Your task to perform on an android device: Add "razer huntsman" to the cart on bestbuy.com, then select checkout. Image 0: 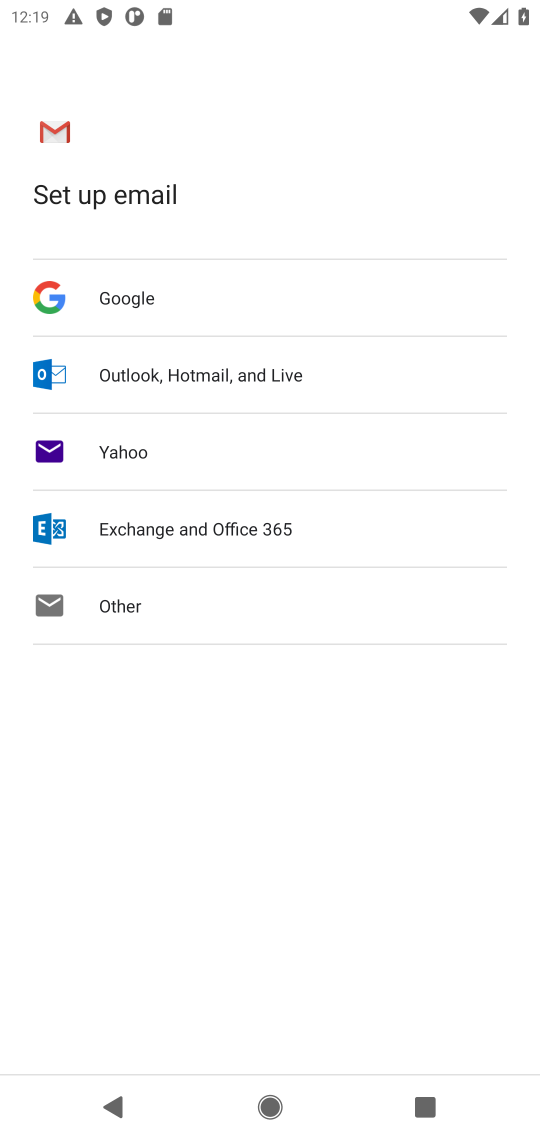
Step 0: press home button
Your task to perform on an android device: Add "razer huntsman" to the cart on bestbuy.com, then select checkout. Image 1: 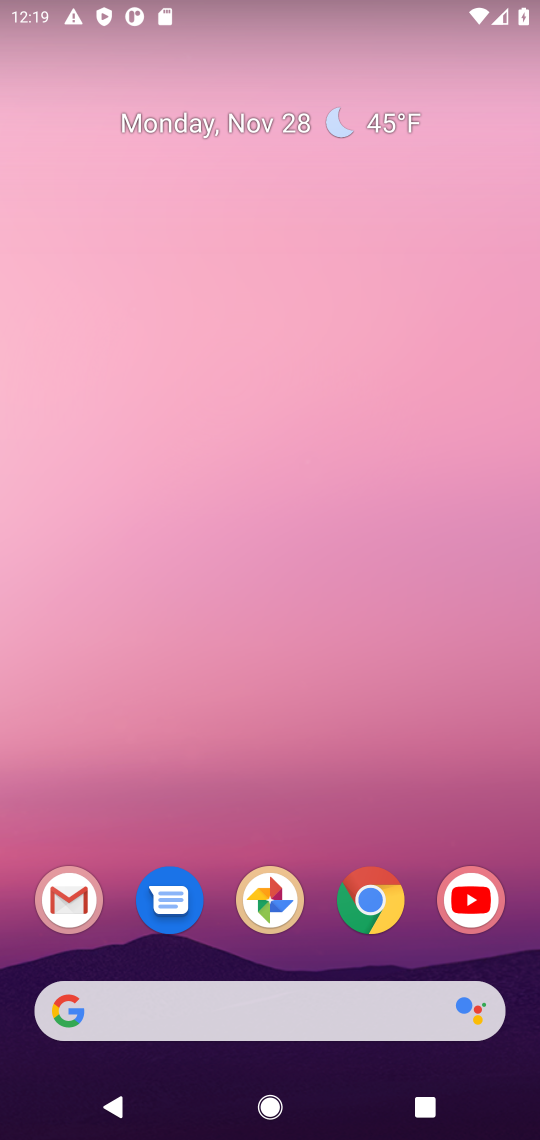
Step 1: click (368, 893)
Your task to perform on an android device: Add "razer huntsman" to the cart on bestbuy.com, then select checkout. Image 2: 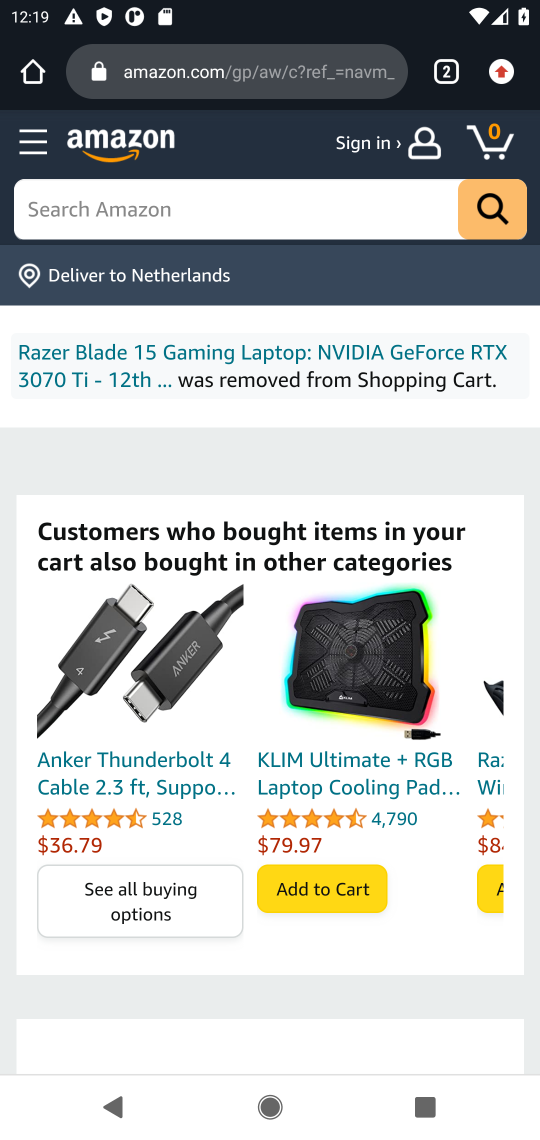
Step 2: click (215, 79)
Your task to perform on an android device: Add "razer huntsman" to the cart on bestbuy.com, then select checkout. Image 3: 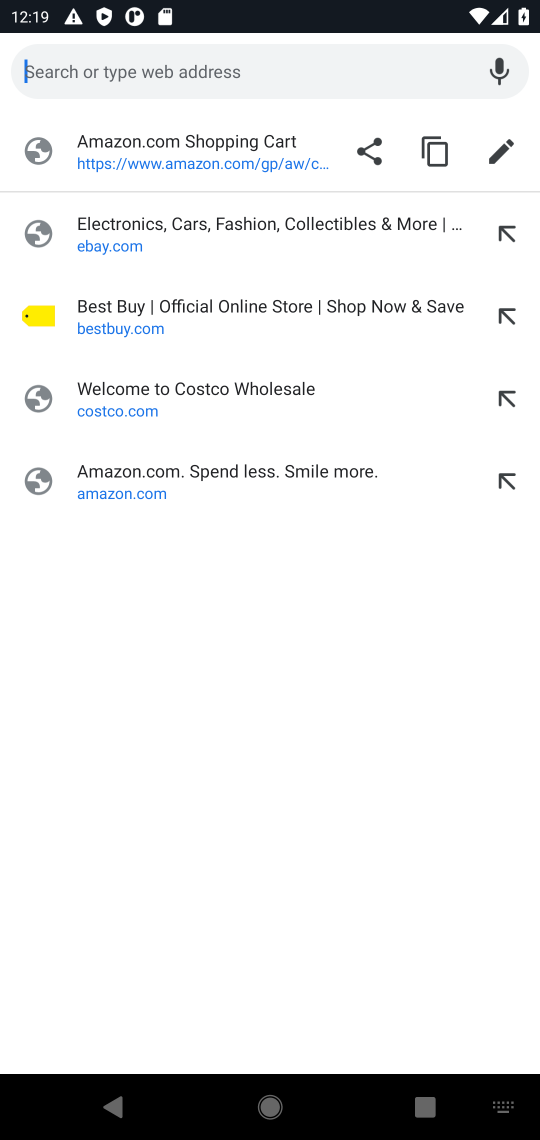
Step 3: click (124, 305)
Your task to perform on an android device: Add "razer huntsman" to the cart on bestbuy.com, then select checkout. Image 4: 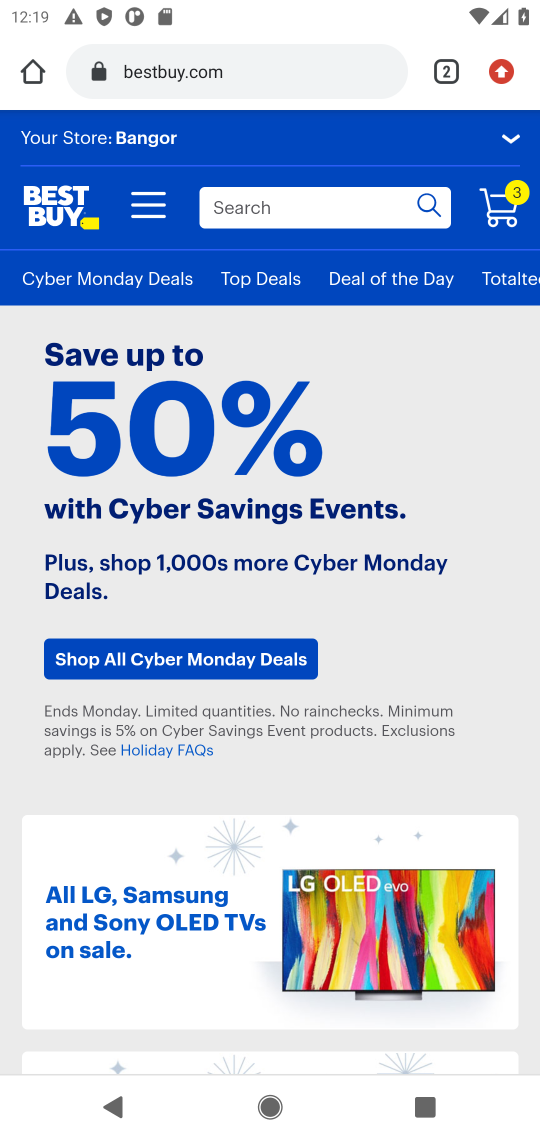
Step 4: click (265, 206)
Your task to perform on an android device: Add "razer huntsman" to the cart on bestbuy.com, then select checkout. Image 5: 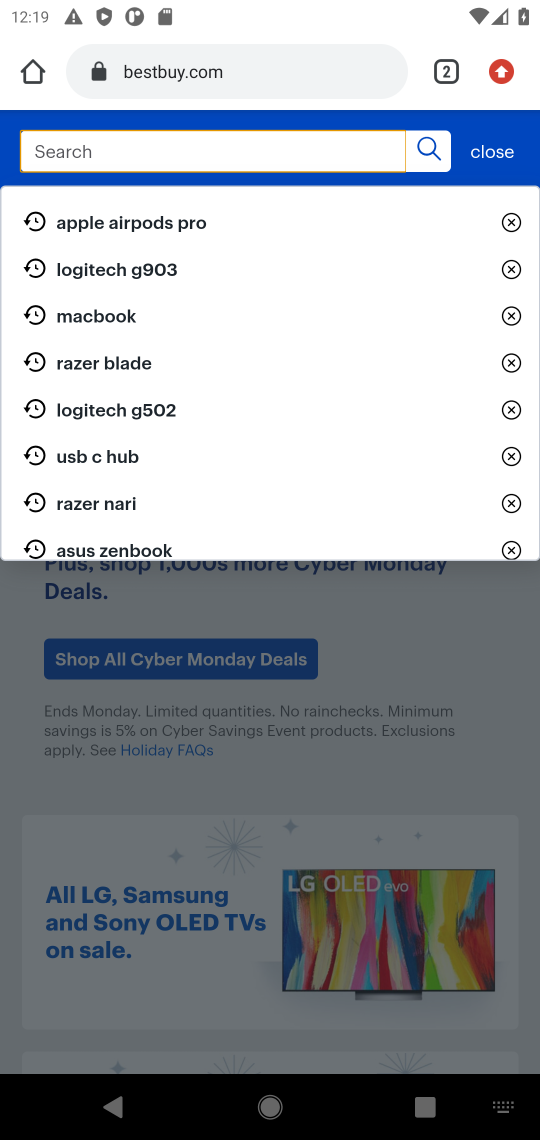
Step 5: type "razer huntsman"
Your task to perform on an android device: Add "razer huntsman" to the cart on bestbuy.com, then select checkout. Image 6: 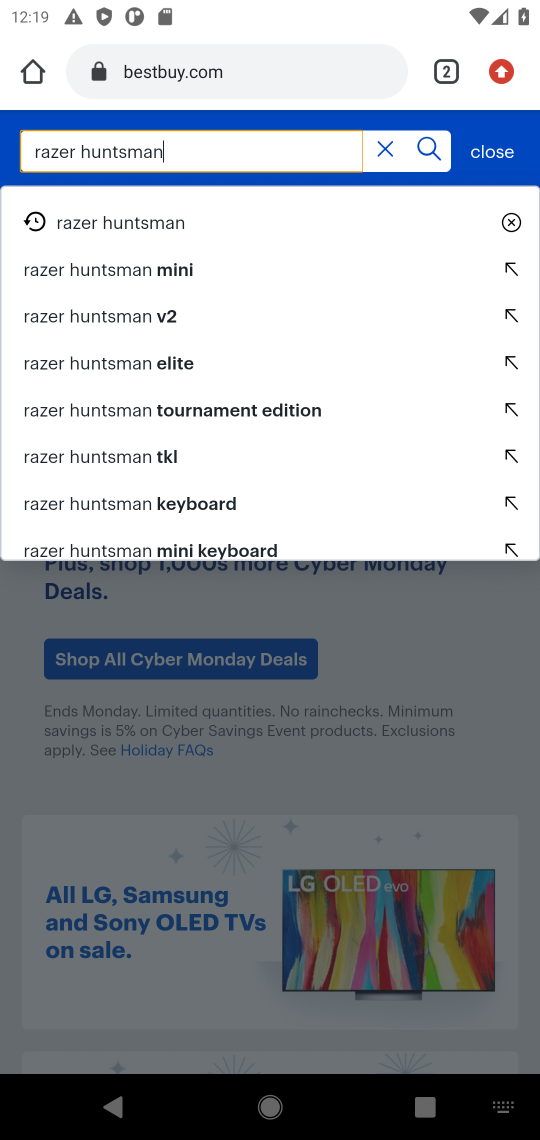
Step 6: click (127, 227)
Your task to perform on an android device: Add "razer huntsman" to the cart on bestbuy.com, then select checkout. Image 7: 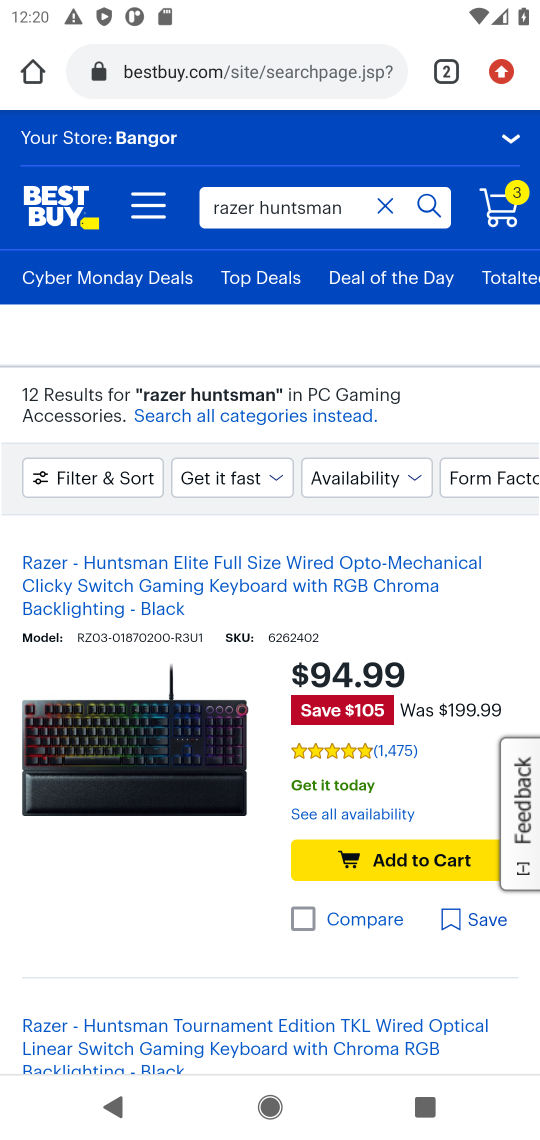
Step 7: click (400, 859)
Your task to perform on an android device: Add "razer huntsman" to the cart on bestbuy.com, then select checkout. Image 8: 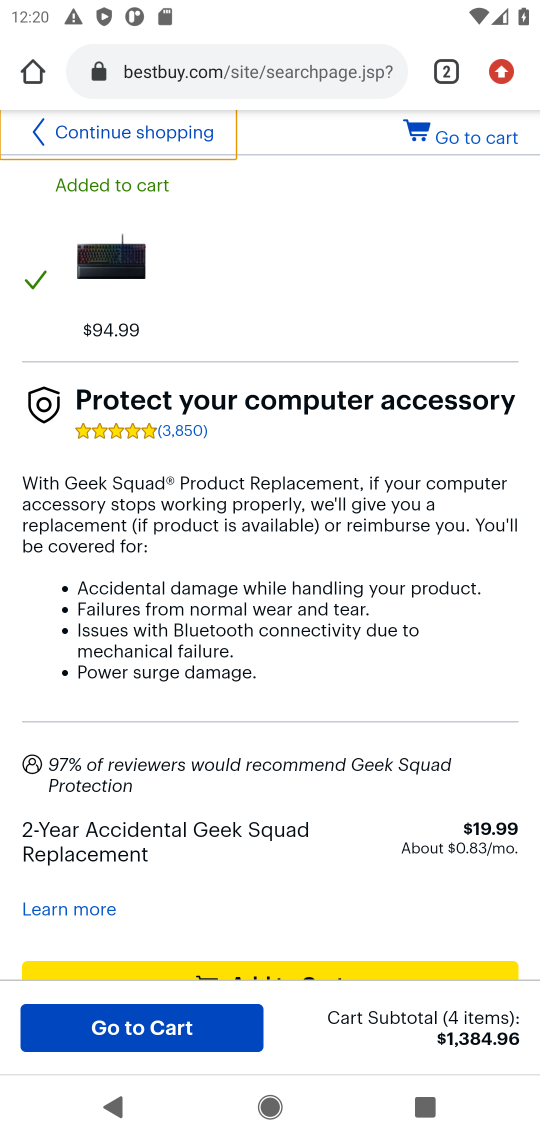
Step 8: click (462, 136)
Your task to perform on an android device: Add "razer huntsman" to the cart on bestbuy.com, then select checkout. Image 9: 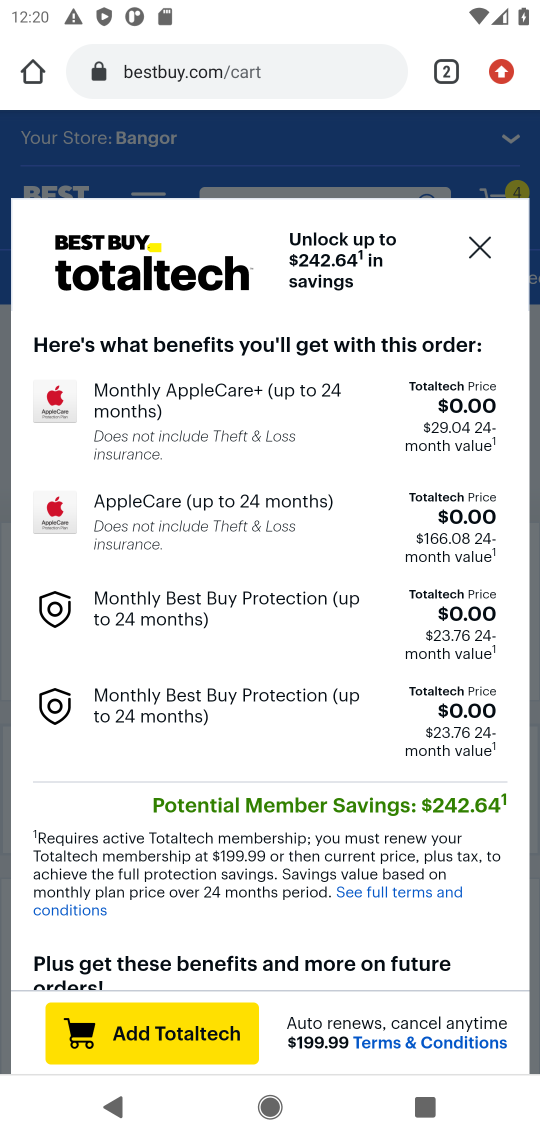
Step 9: click (477, 246)
Your task to perform on an android device: Add "razer huntsman" to the cart on bestbuy.com, then select checkout. Image 10: 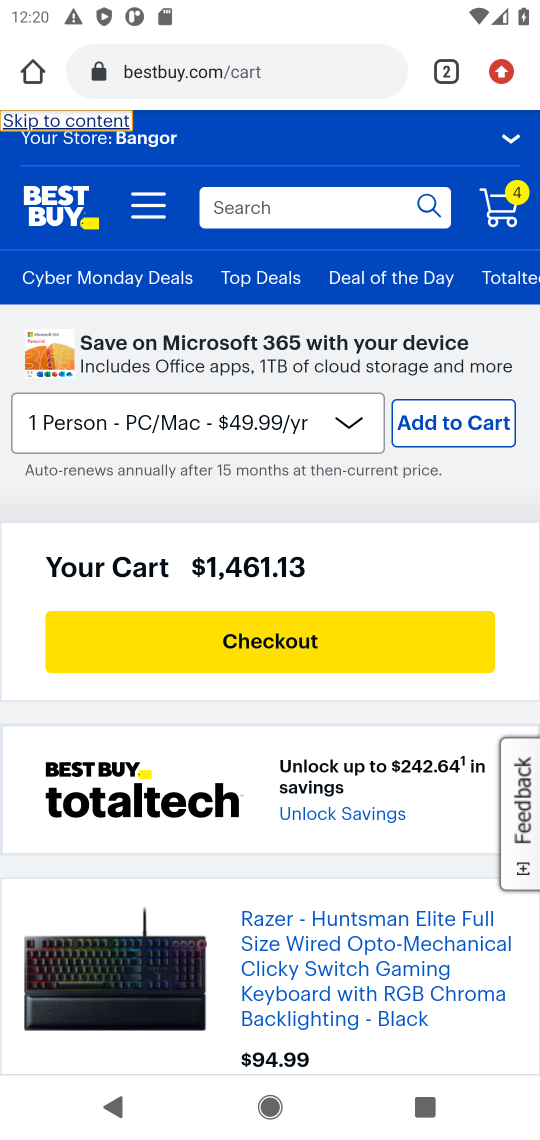
Step 10: click (259, 639)
Your task to perform on an android device: Add "razer huntsman" to the cart on bestbuy.com, then select checkout. Image 11: 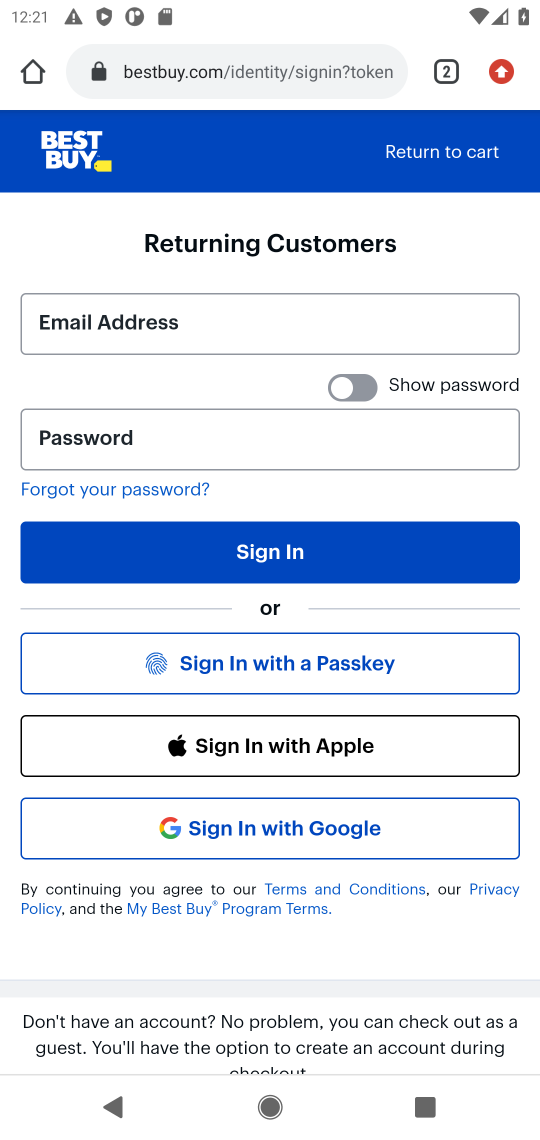
Step 11: task complete